Your task to perform on an android device: open chrome and create a bookmark for the current page Image 0: 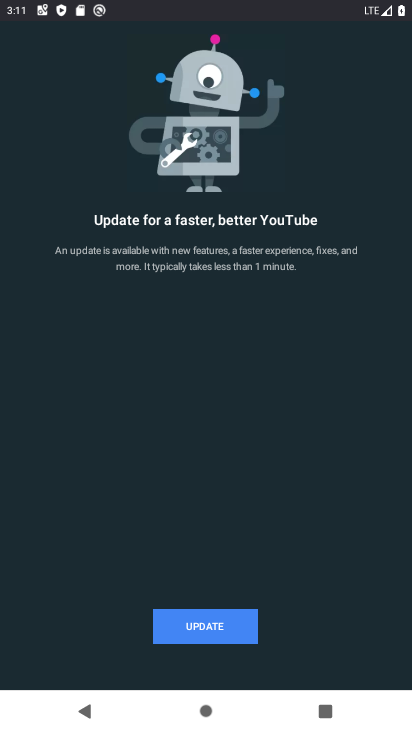
Step 0: press home button
Your task to perform on an android device: open chrome and create a bookmark for the current page Image 1: 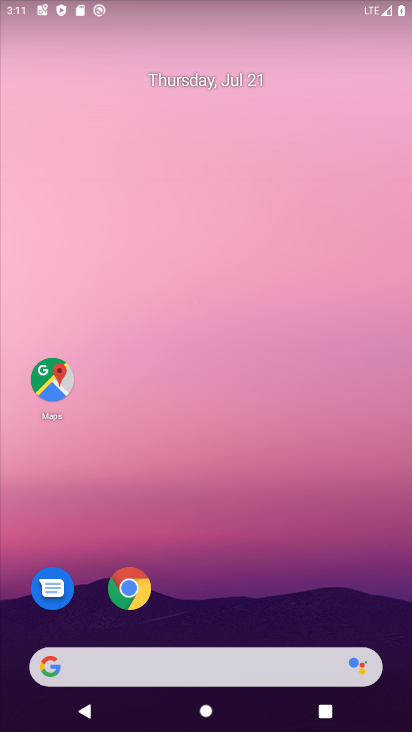
Step 1: click (124, 577)
Your task to perform on an android device: open chrome and create a bookmark for the current page Image 2: 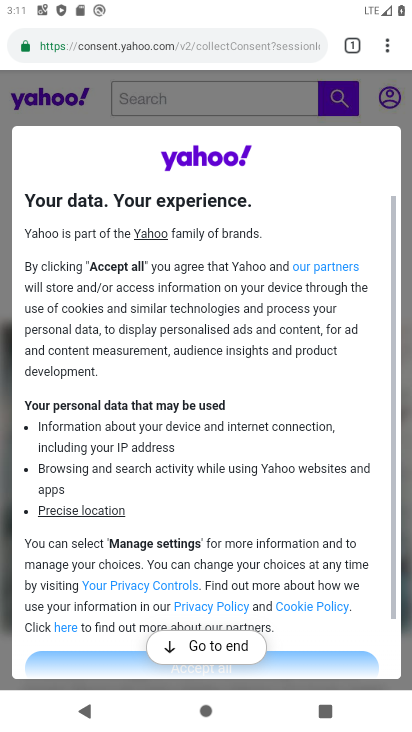
Step 2: click (382, 57)
Your task to perform on an android device: open chrome and create a bookmark for the current page Image 3: 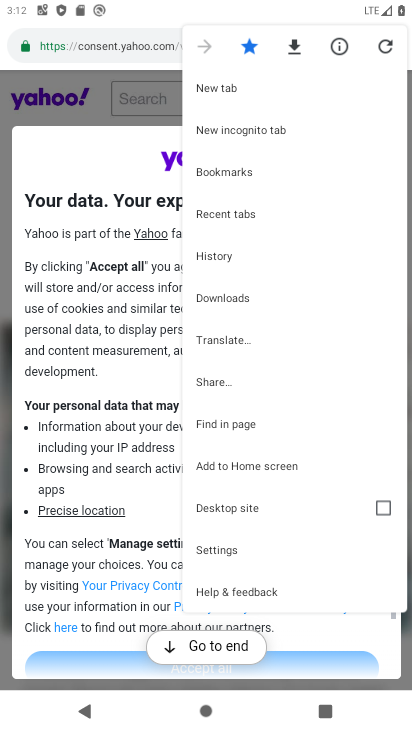
Step 3: task complete